Your task to perform on an android device: Open calendar and show me the fourth week of next month Image 0: 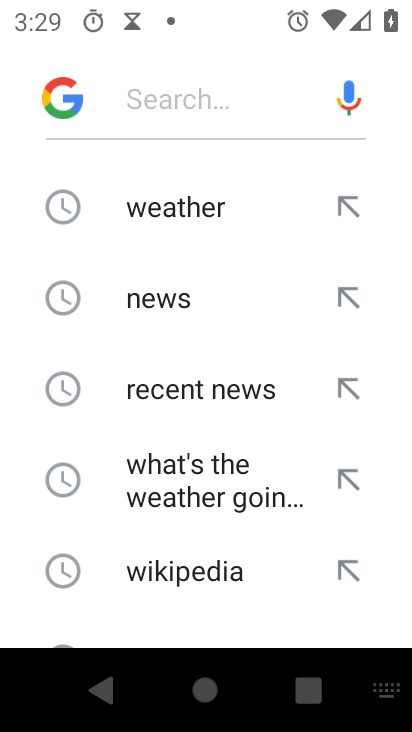
Step 0: press home button
Your task to perform on an android device: Open calendar and show me the fourth week of next month Image 1: 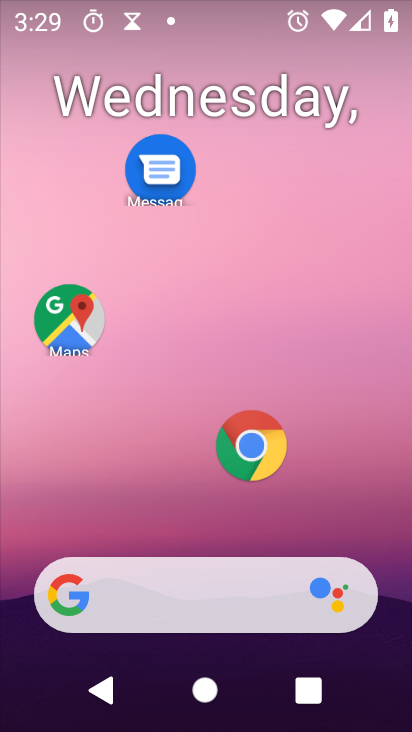
Step 1: drag from (33, 605) to (361, 115)
Your task to perform on an android device: Open calendar and show me the fourth week of next month Image 2: 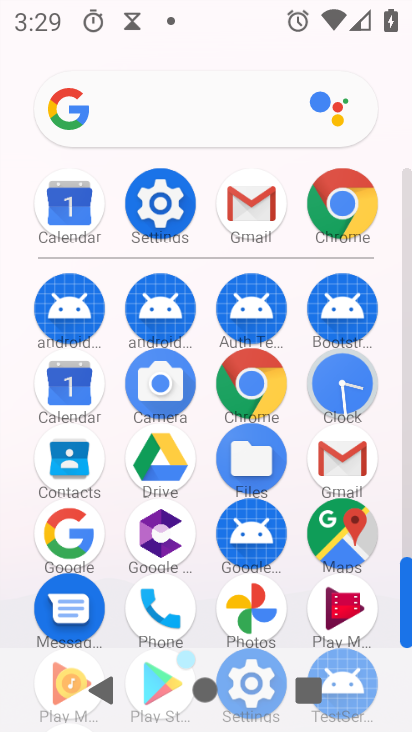
Step 2: click (77, 397)
Your task to perform on an android device: Open calendar and show me the fourth week of next month Image 3: 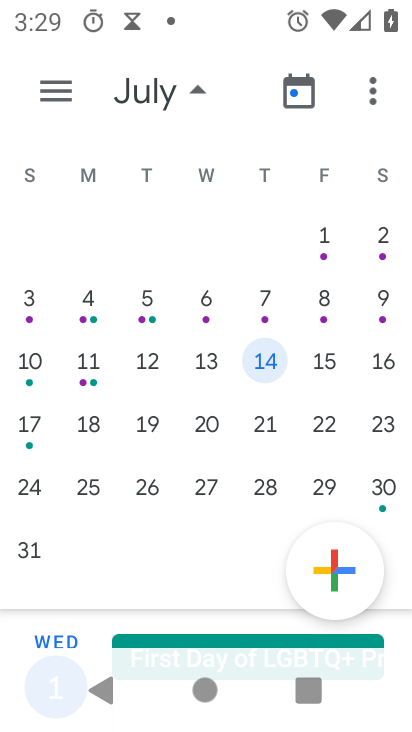
Step 3: drag from (0, 451) to (409, 435)
Your task to perform on an android device: Open calendar and show me the fourth week of next month Image 4: 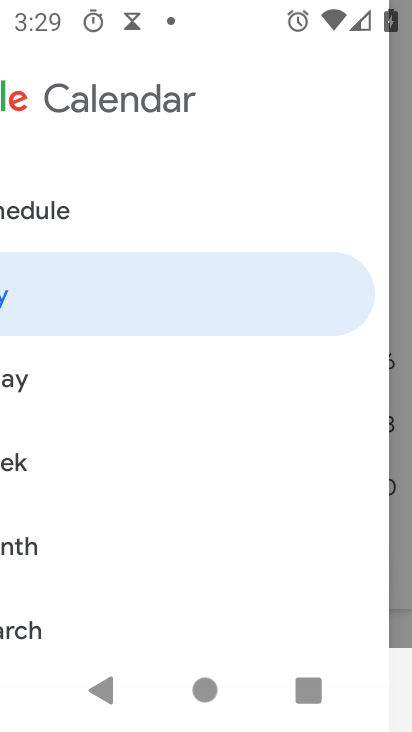
Step 4: press back button
Your task to perform on an android device: Open calendar and show me the fourth week of next month Image 5: 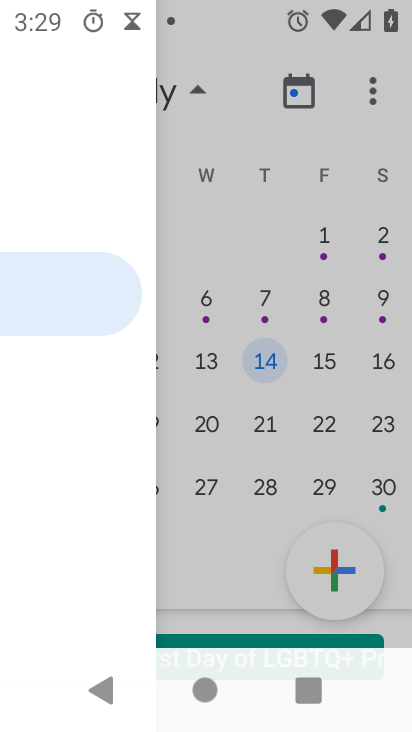
Step 5: drag from (409, 435) to (367, 392)
Your task to perform on an android device: Open calendar and show me the fourth week of next month Image 6: 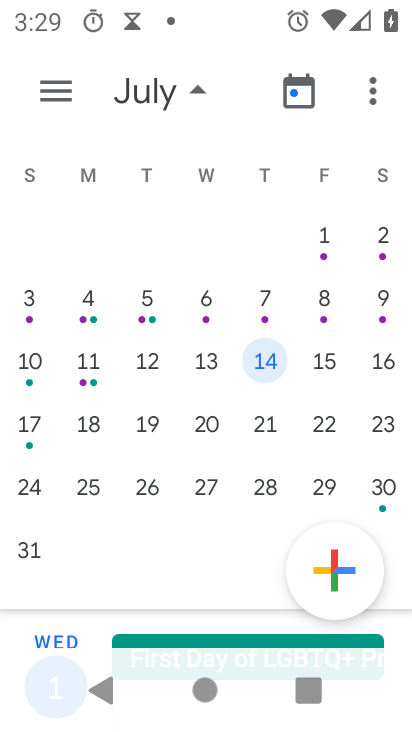
Step 6: drag from (46, 353) to (407, 336)
Your task to perform on an android device: Open calendar and show me the fourth week of next month Image 7: 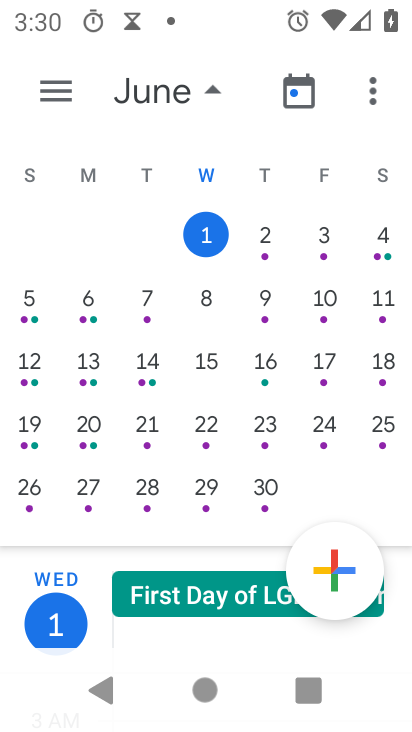
Step 7: drag from (69, 312) to (1, 280)
Your task to perform on an android device: Open calendar and show me the fourth week of next month Image 8: 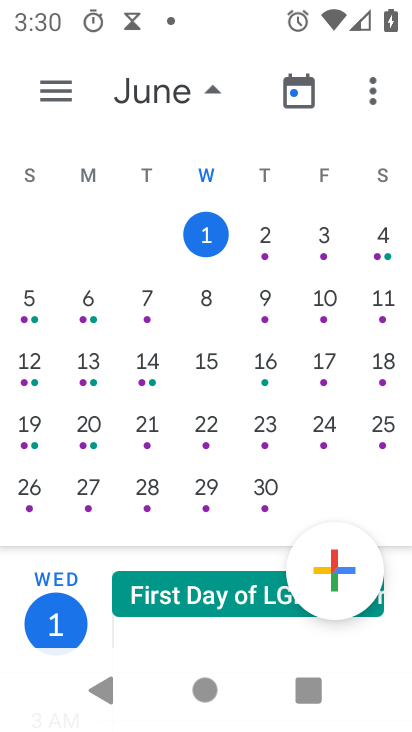
Step 8: drag from (404, 284) to (2, 229)
Your task to perform on an android device: Open calendar and show me the fourth week of next month Image 9: 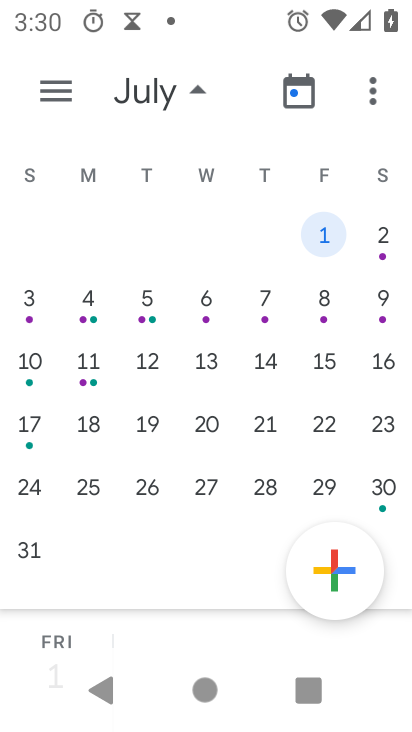
Step 9: click (215, 301)
Your task to perform on an android device: Open calendar and show me the fourth week of next month Image 10: 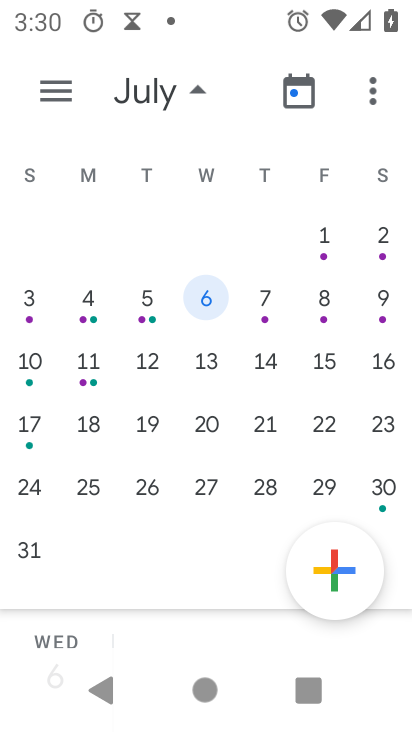
Step 10: click (213, 365)
Your task to perform on an android device: Open calendar and show me the fourth week of next month Image 11: 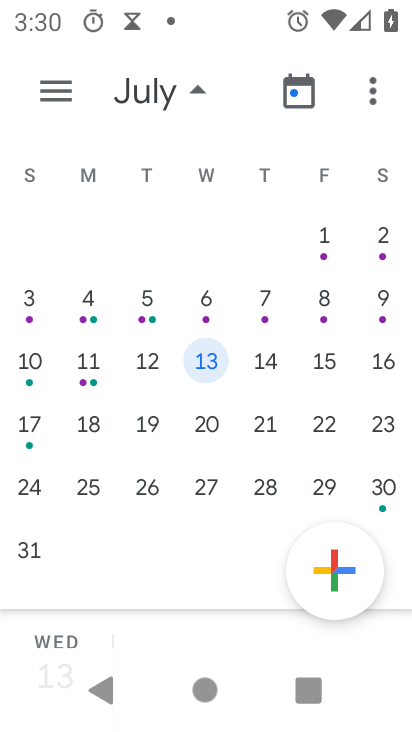
Step 11: click (202, 422)
Your task to perform on an android device: Open calendar and show me the fourth week of next month Image 12: 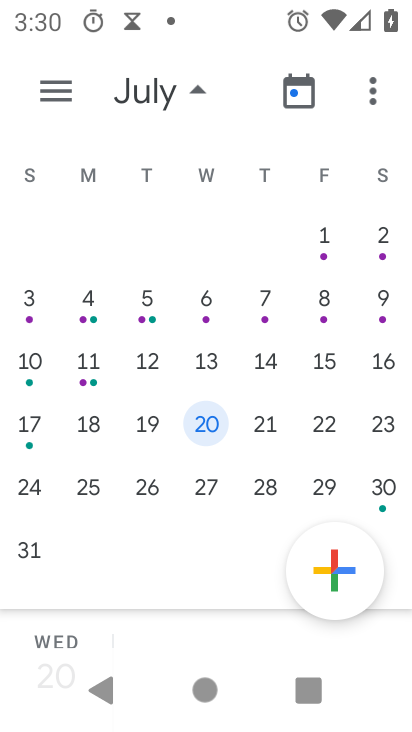
Step 12: task complete